Your task to perform on an android device: Open the Play Movies app and select the watchlist tab. Image 0: 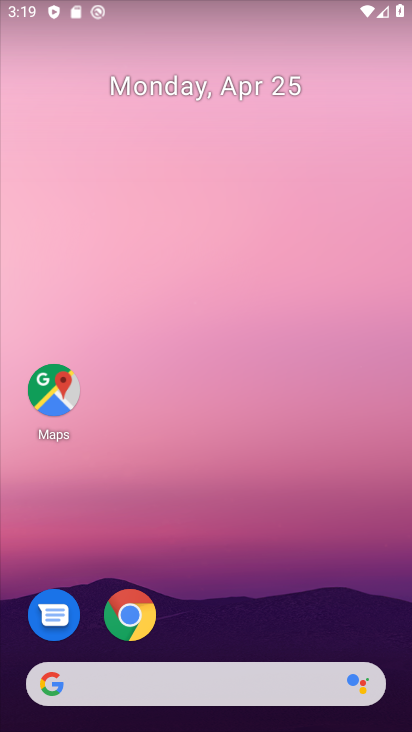
Step 0: drag from (202, 529) to (243, 131)
Your task to perform on an android device: Open the Play Movies app and select the watchlist tab. Image 1: 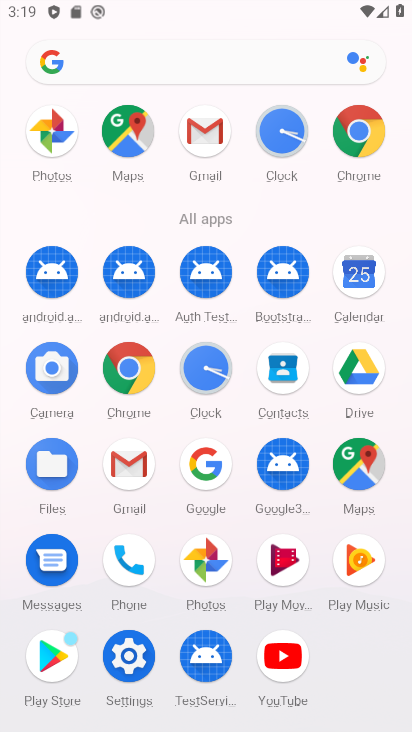
Step 1: click (280, 563)
Your task to perform on an android device: Open the Play Movies app and select the watchlist tab. Image 2: 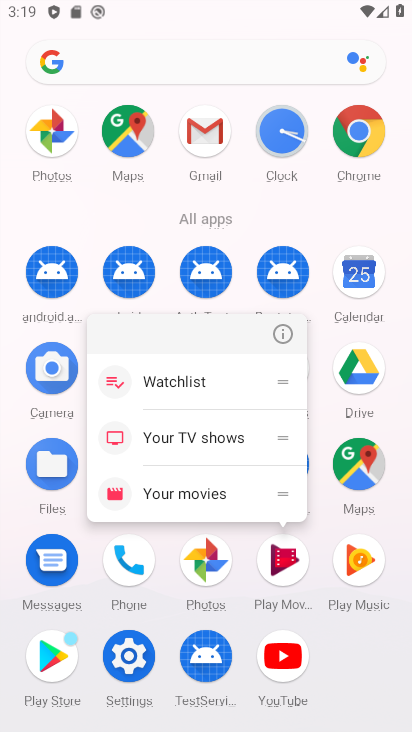
Step 2: click (280, 561)
Your task to perform on an android device: Open the Play Movies app and select the watchlist tab. Image 3: 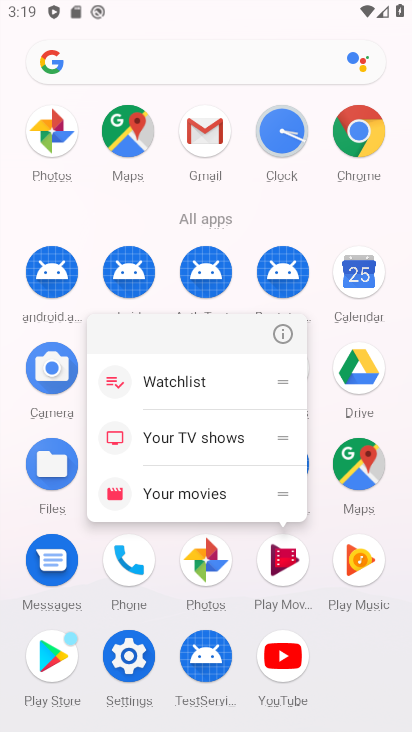
Step 3: click (280, 561)
Your task to perform on an android device: Open the Play Movies app and select the watchlist tab. Image 4: 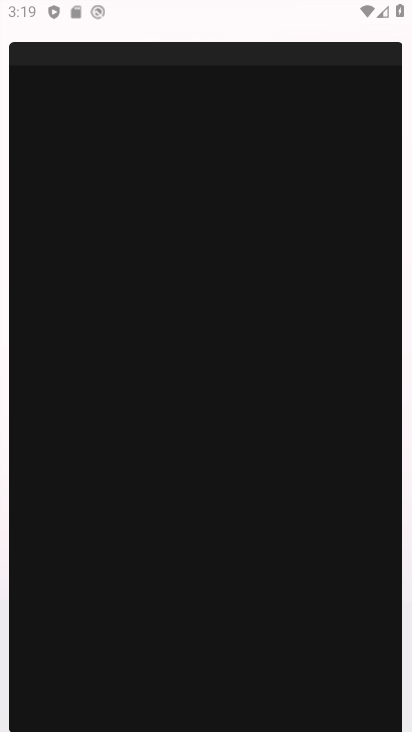
Step 4: click (308, 572)
Your task to perform on an android device: Open the Play Movies app and select the watchlist tab. Image 5: 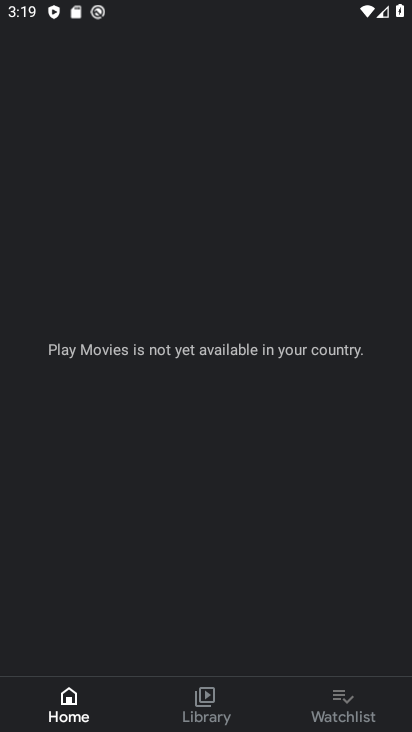
Step 5: click (341, 710)
Your task to perform on an android device: Open the Play Movies app and select the watchlist tab. Image 6: 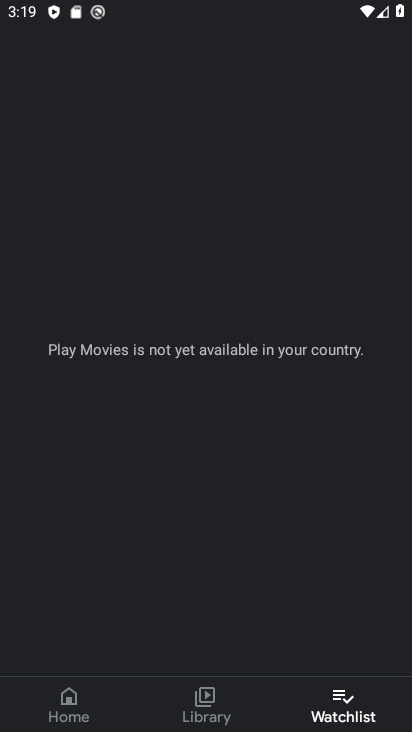
Step 6: click (341, 710)
Your task to perform on an android device: Open the Play Movies app and select the watchlist tab. Image 7: 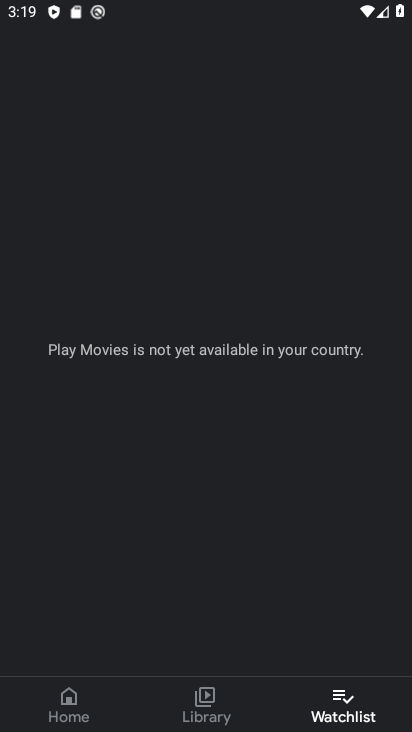
Step 7: task complete